Your task to perform on an android device: Show me popular videos on Youtube Image 0: 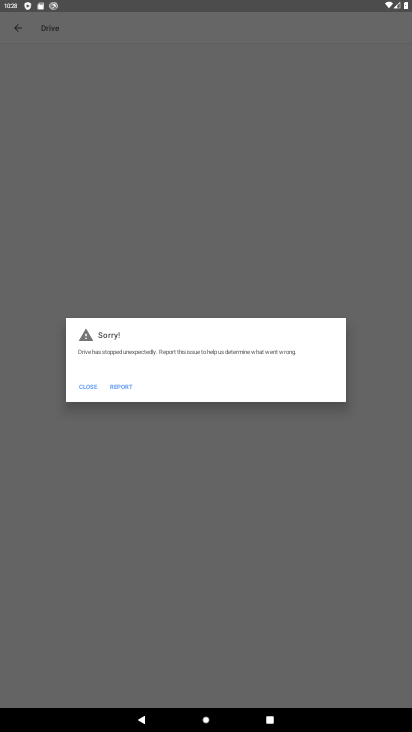
Step 0: press home button
Your task to perform on an android device: Show me popular videos on Youtube Image 1: 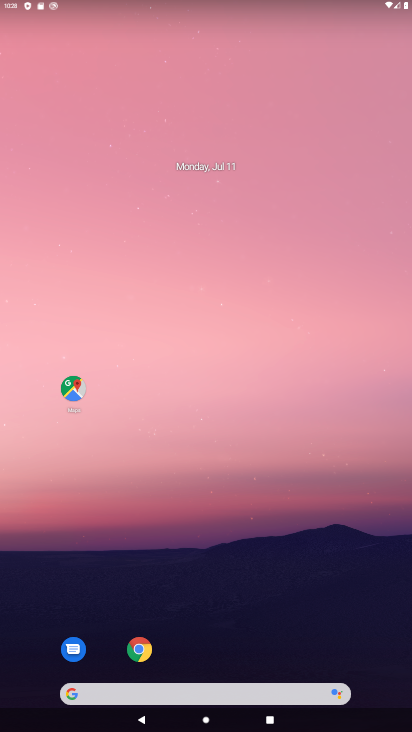
Step 1: drag from (296, 409) to (266, 71)
Your task to perform on an android device: Show me popular videos on Youtube Image 2: 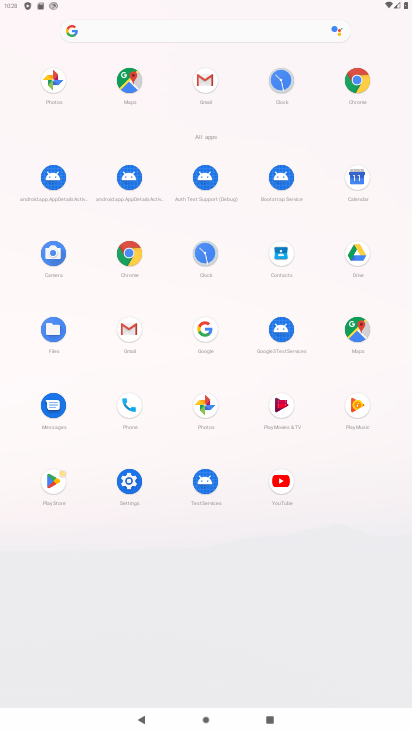
Step 2: click (287, 481)
Your task to perform on an android device: Show me popular videos on Youtube Image 3: 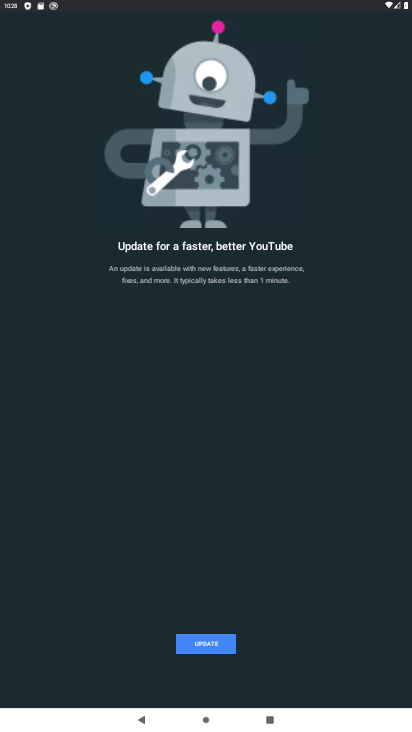
Step 3: task complete